Your task to perform on an android device: change text size in settings app Image 0: 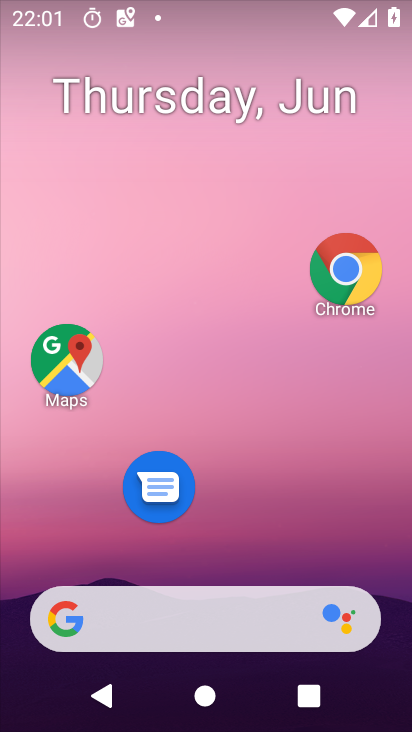
Step 0: drag from (207, 449) to (173, 4)
Your task to perform on an android device: change text size in settings app Image 1: 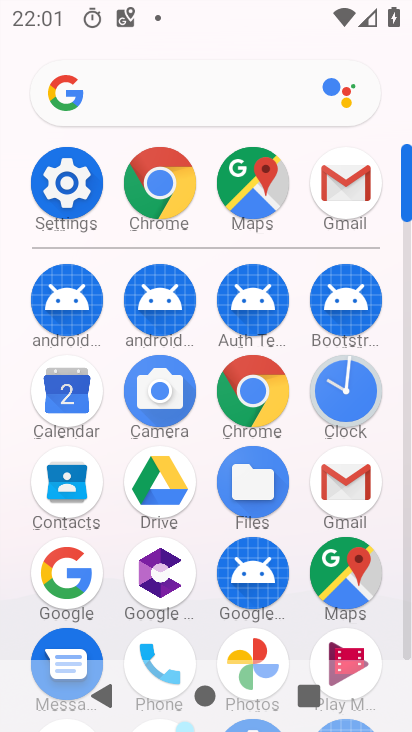
Step 1: drag from (207, 506) to (240, 115)
Your task to perform on an android device: change text size in settings app Image 2: 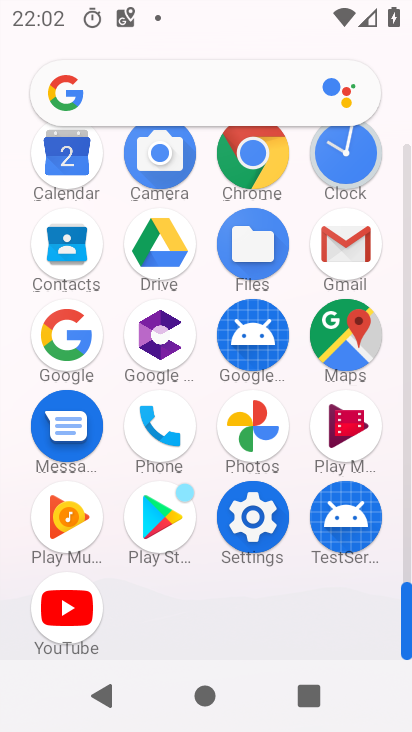
Step 2: click (239, 513)
Your task to perform on an android device: change text size in settings app Image 3: 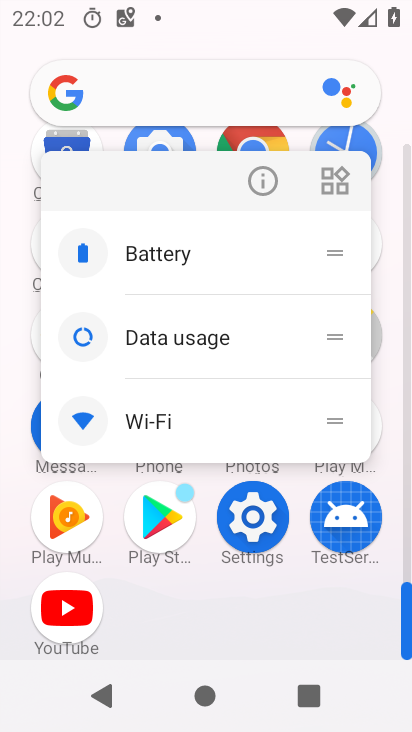
Step 3: click (281, 179)
Your task to perform on an android device: change text size in settings app Image 4: 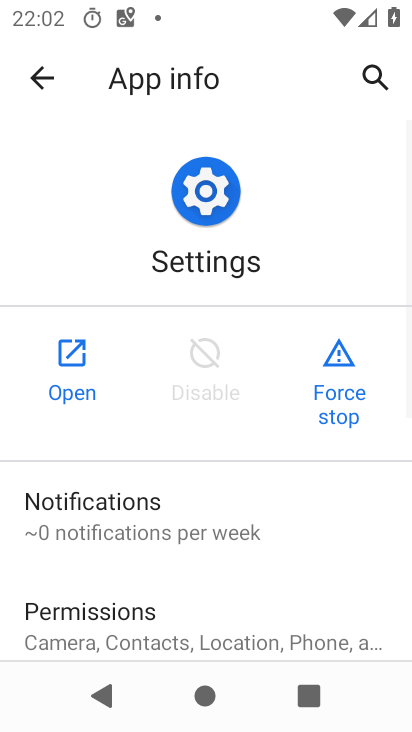
Step 4: click (73, 350)
Your task to perform on an android device: change text size in settings app Image 5: 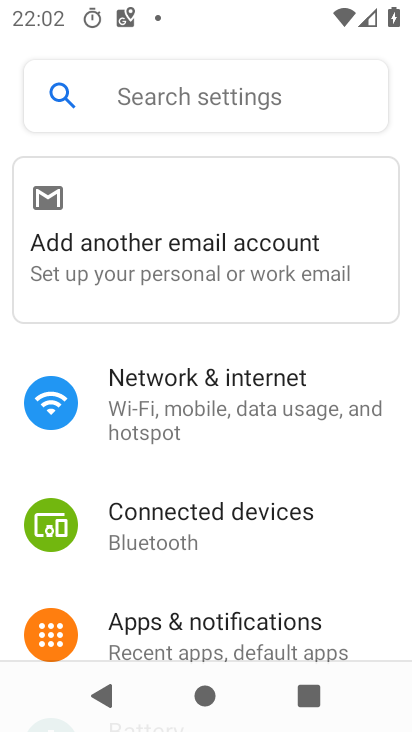
Step 5: drag from (186, 604) to (279, 56)
Your task to perform on an android device: change text size in settings app Image 6: 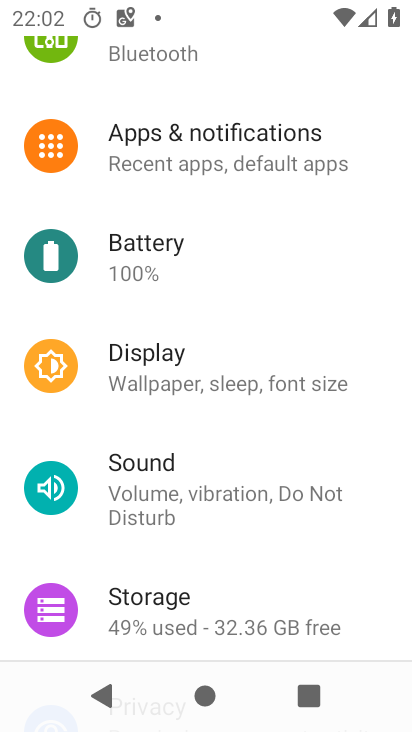
Step 6: drag from (179, 273) to (205, 653)
Your task to perform on an android device: change text size in settings app Image 7: 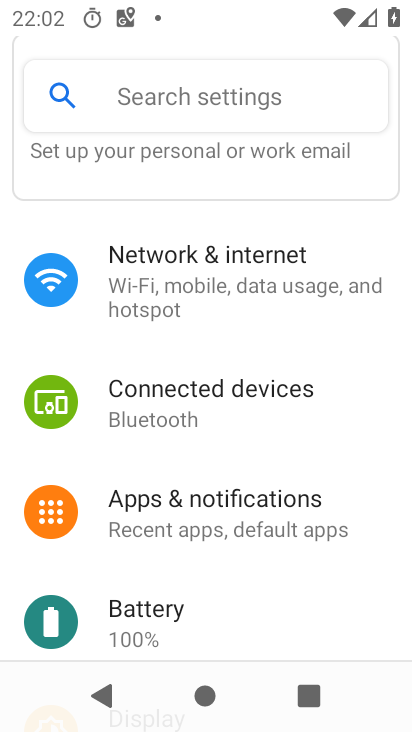
Step 7: drag from (205, 577) to (364, 50)
Your task to perform on an android device: change text size in settings app Image 8: 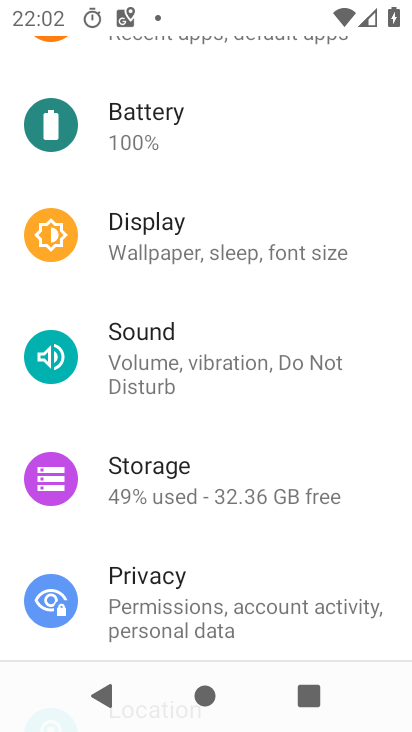
Step 8: drag from (238, 540) to (325, 40)
Your task to perform on an android device: change text size in settings app Image 9: 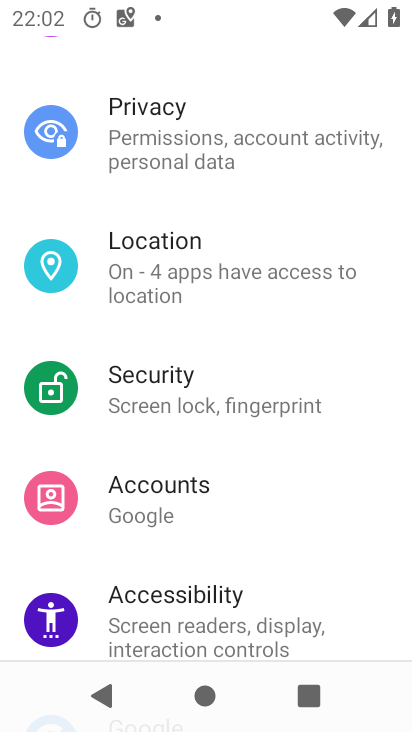
Step 9: drag from (195, 529) to (166, 6)
Your task to perform on an android device: change text size in settings app Image 10: 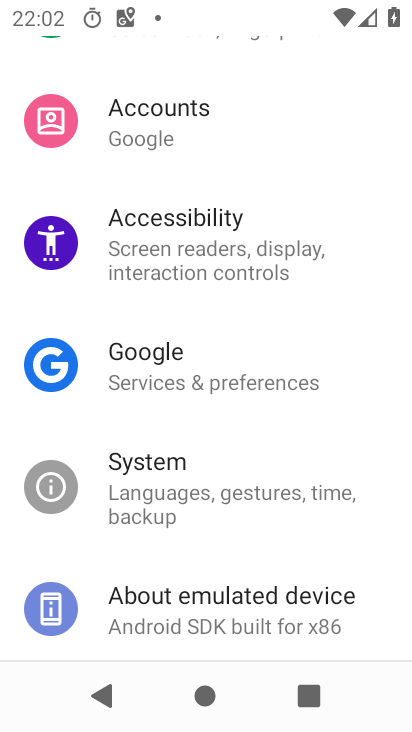
Step 10: drag from (175, 456) to (127, 1)
Your task to perform on an android device: change text size in settings app Image 11: 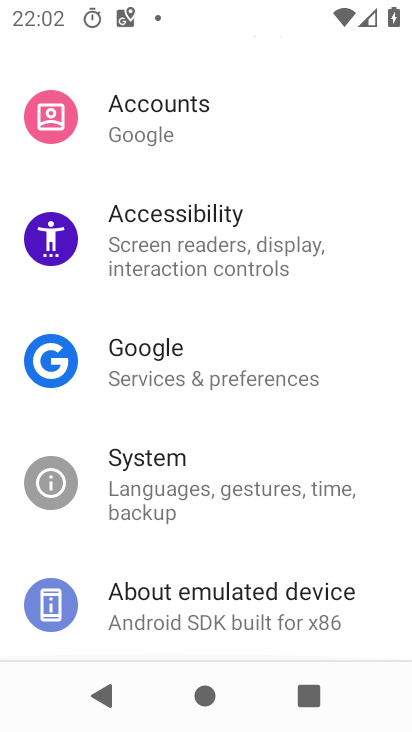
Step 11: drag from (110, 178) to (170, 672)
Your task to perform on an android device: change text size in settings app Image 12: 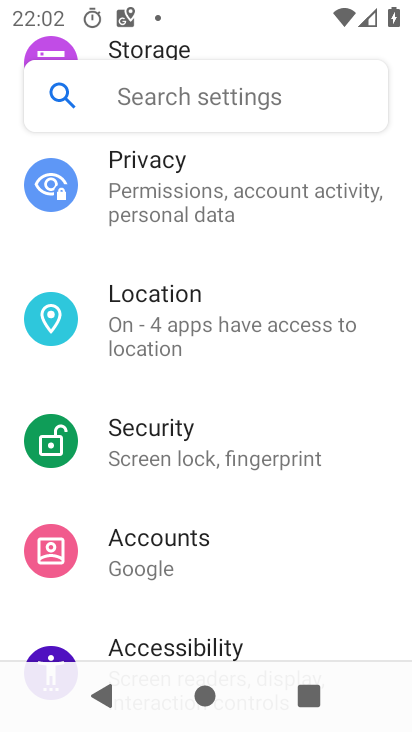
Step 12: drag from (164, 212) to (193, 665)
Your task to perform on an android device: change text size in settings app Image 13: 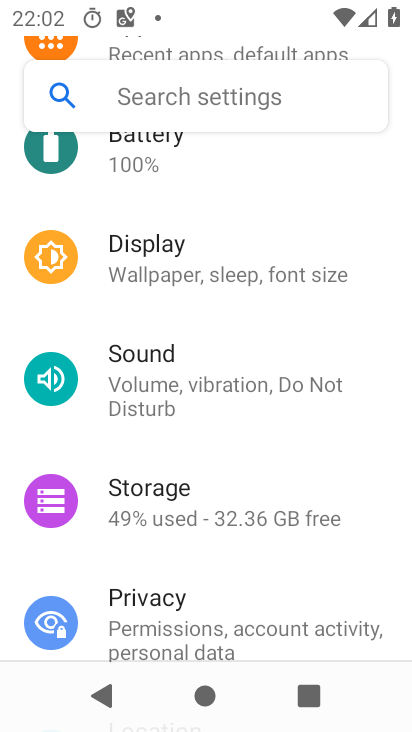
Step 13: drag from (230, 236) to (226, 640)
Your task to perform on an android device: change text size in settings app Image 14: 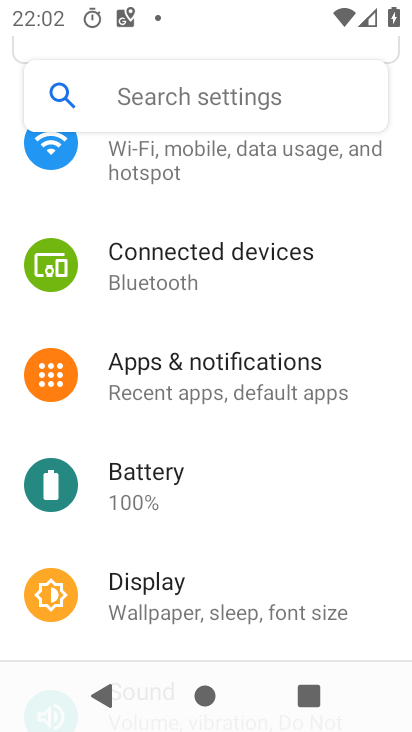
Step 14: drag from (242, 524) to (385, 730)
Your task to perform on an android device: change text size in settings app Image 15: 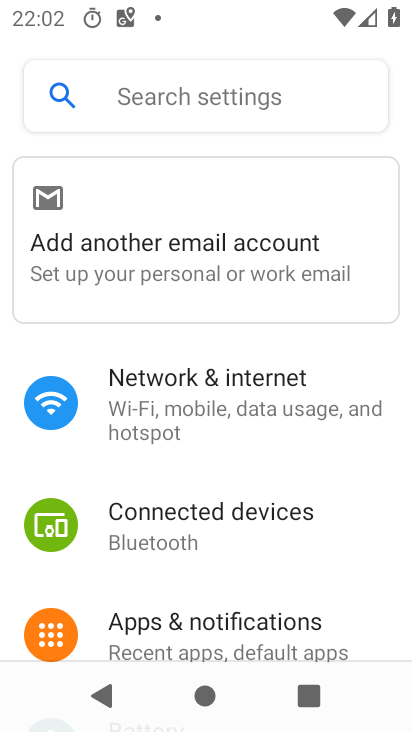
Step 15: drag from (175, 613) to (253, 279)
Your task to perform on an android device: change text size in settings app Image 16: 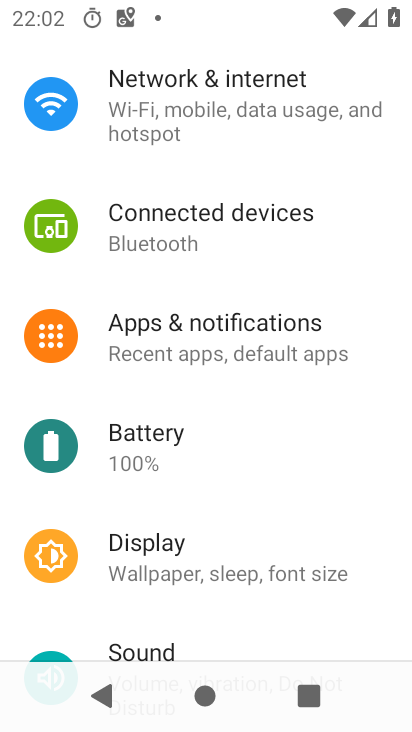
Step 16: drag from (186, 586) to (220, 208)
Your task to perform on an android device: change text size in settings app Image 17: 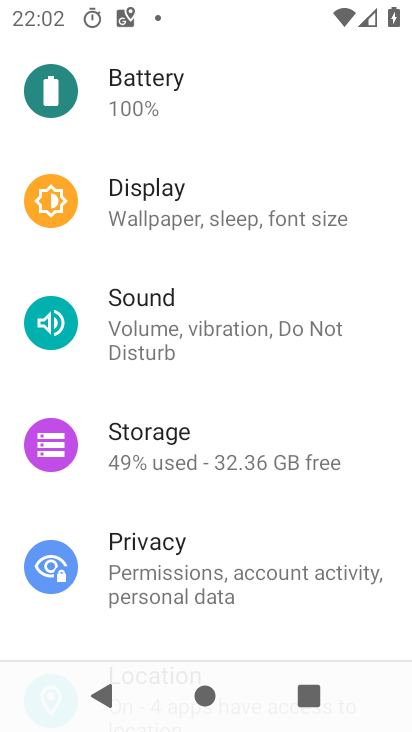
Step 17: click (219, 219)
Your task to perform on an android device: change text size in settings app Image 18: 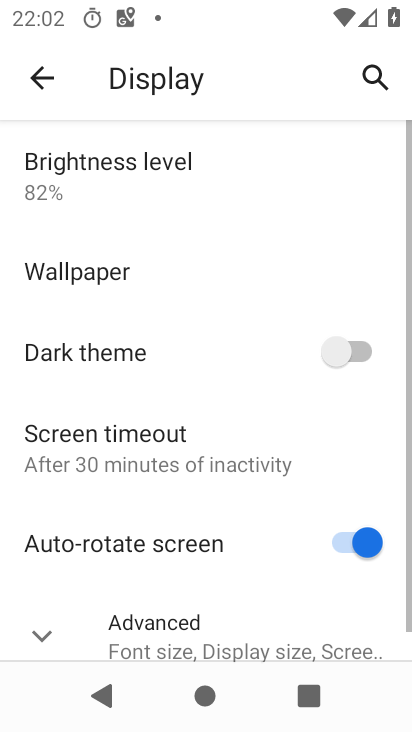
Step 18: click (171, 643)
Your task to perform on an android device: change text size in settings app Image 19: 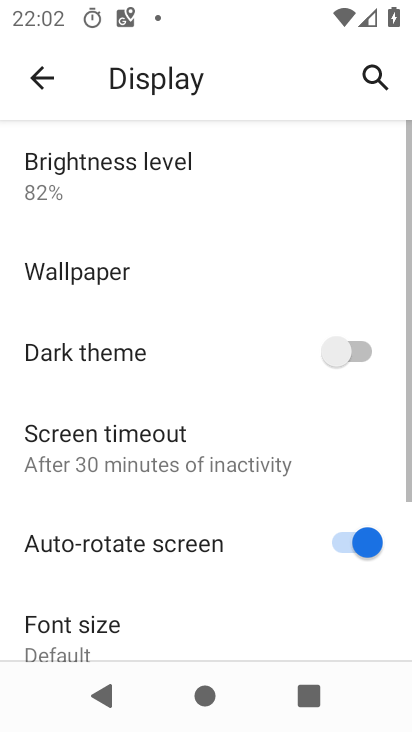
Step 19: drag from (170, 560) to (260, 107)
Your task to perform on an android device: change text size in settings app Image 20: 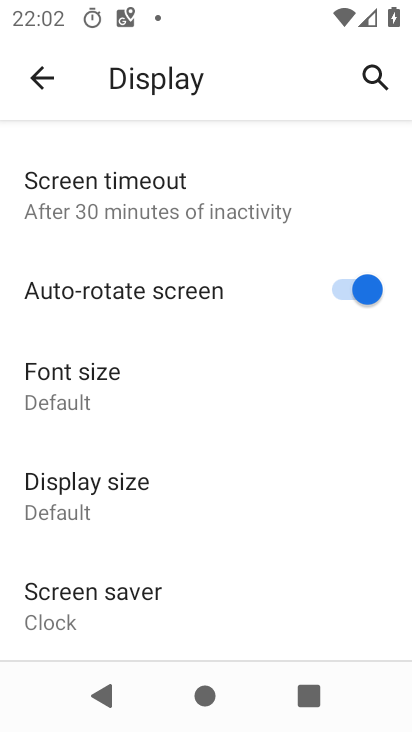
Step 20: click (130, 417)
Your task to perform on an android device: change text size in settings app Image 21: 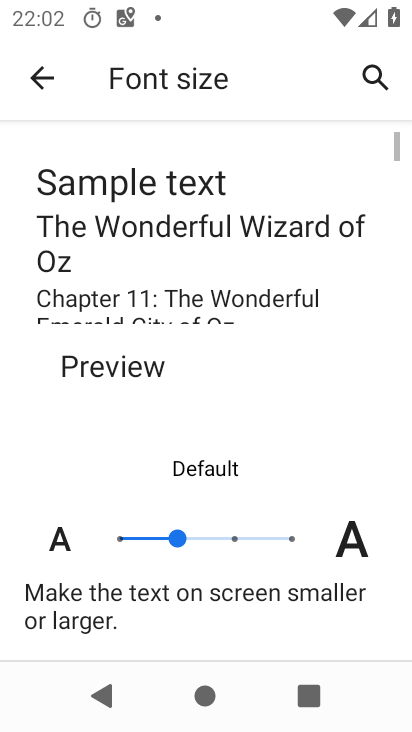
Step 21: drag from (253, 529) to (346, 60)
Your task to perform on an android device: change text size in settings app Image 22: 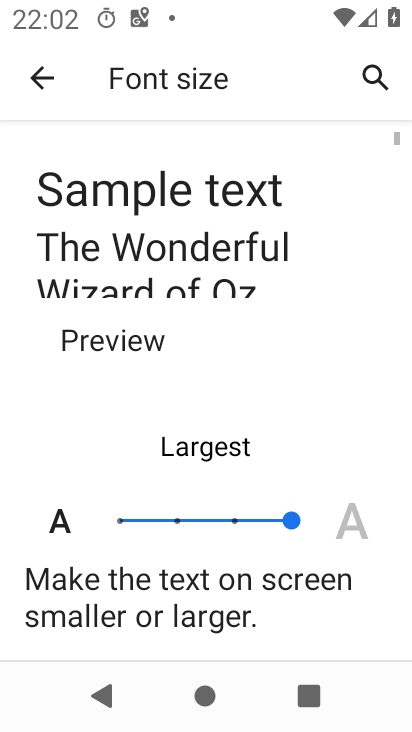
Step 22: click (162, 536)
Your task to perform on an android device: change text size in settings app Image 23: 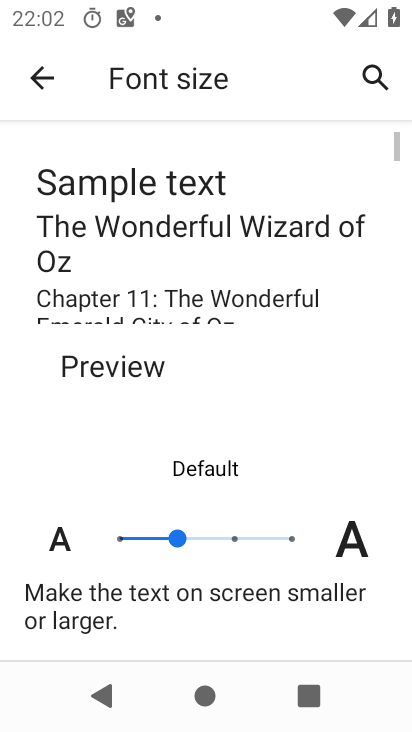
Step 23: task complete